Your task to perform on an android device: open chrome privacy settings Image 0: 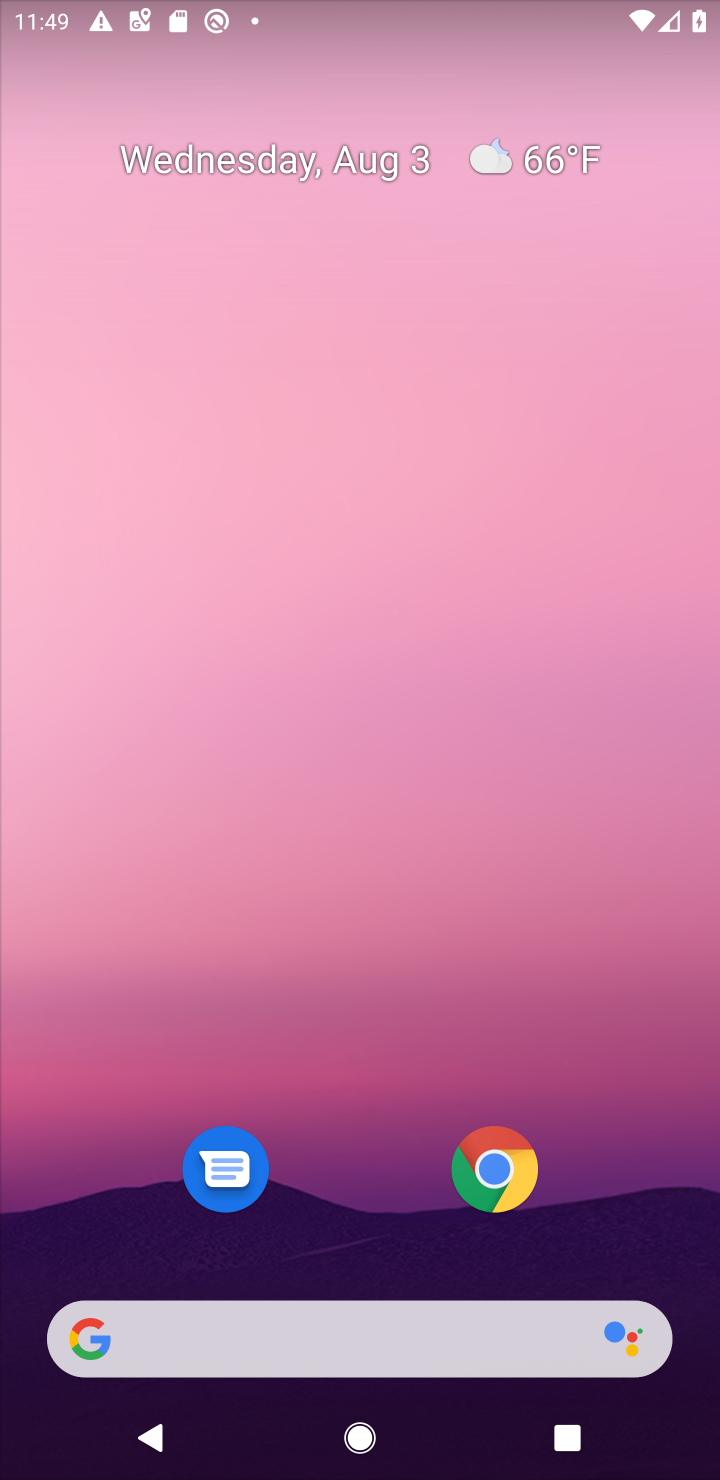
Step 0: press home button
Your task to perform on an android device: open chrome privacy settings Image 1: 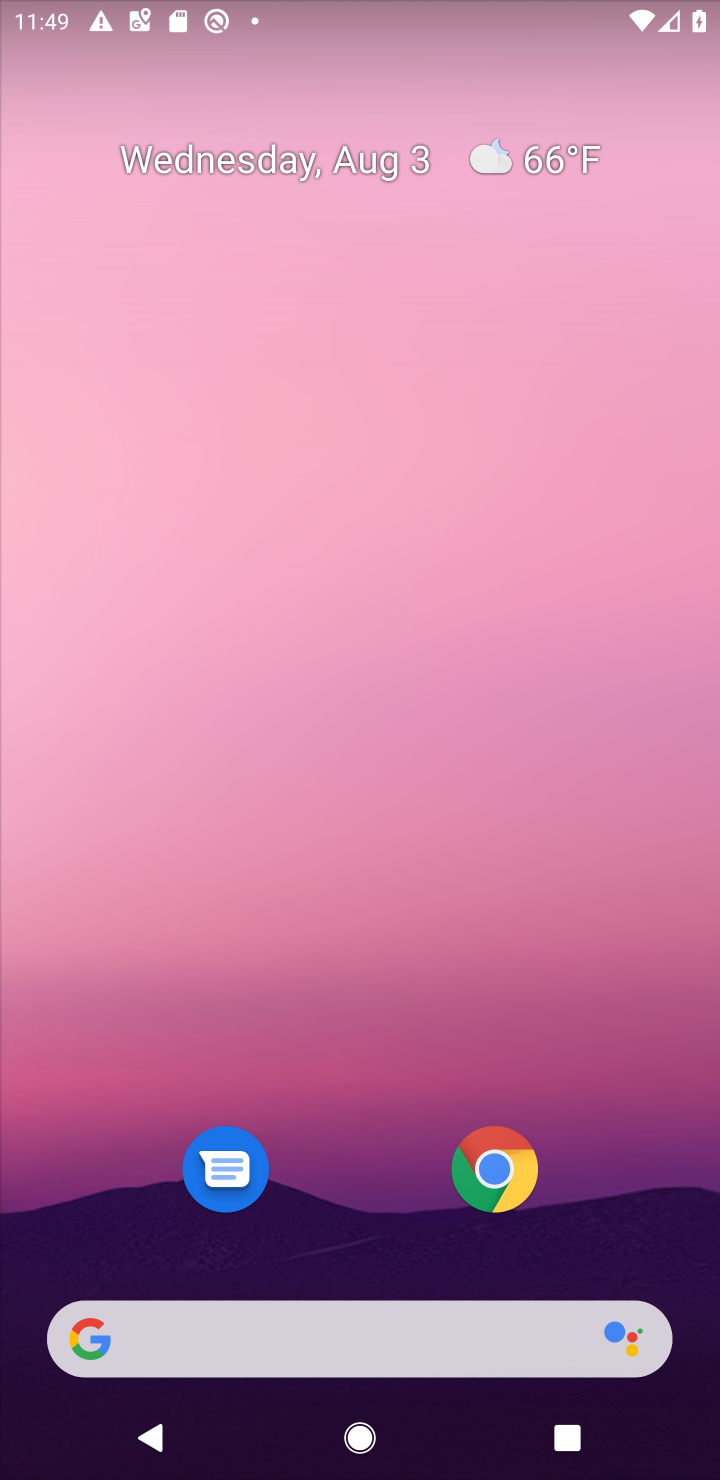
Step 1: click (498, 1179)
Your task to perform on an android device: open chrome privacy settings Image 2: 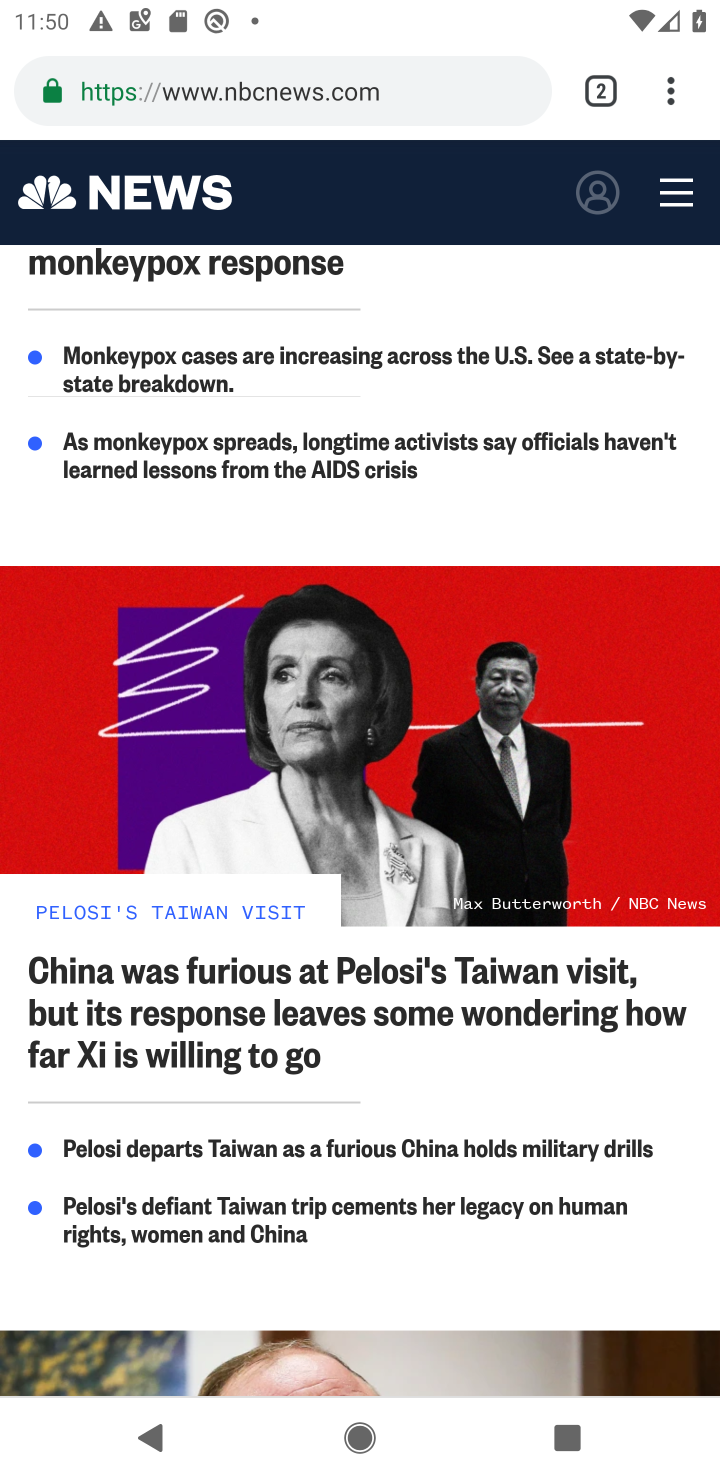
Step 2: click (674, 92)
Your task to perform on an android device: open chrome privacy settings Image 3: 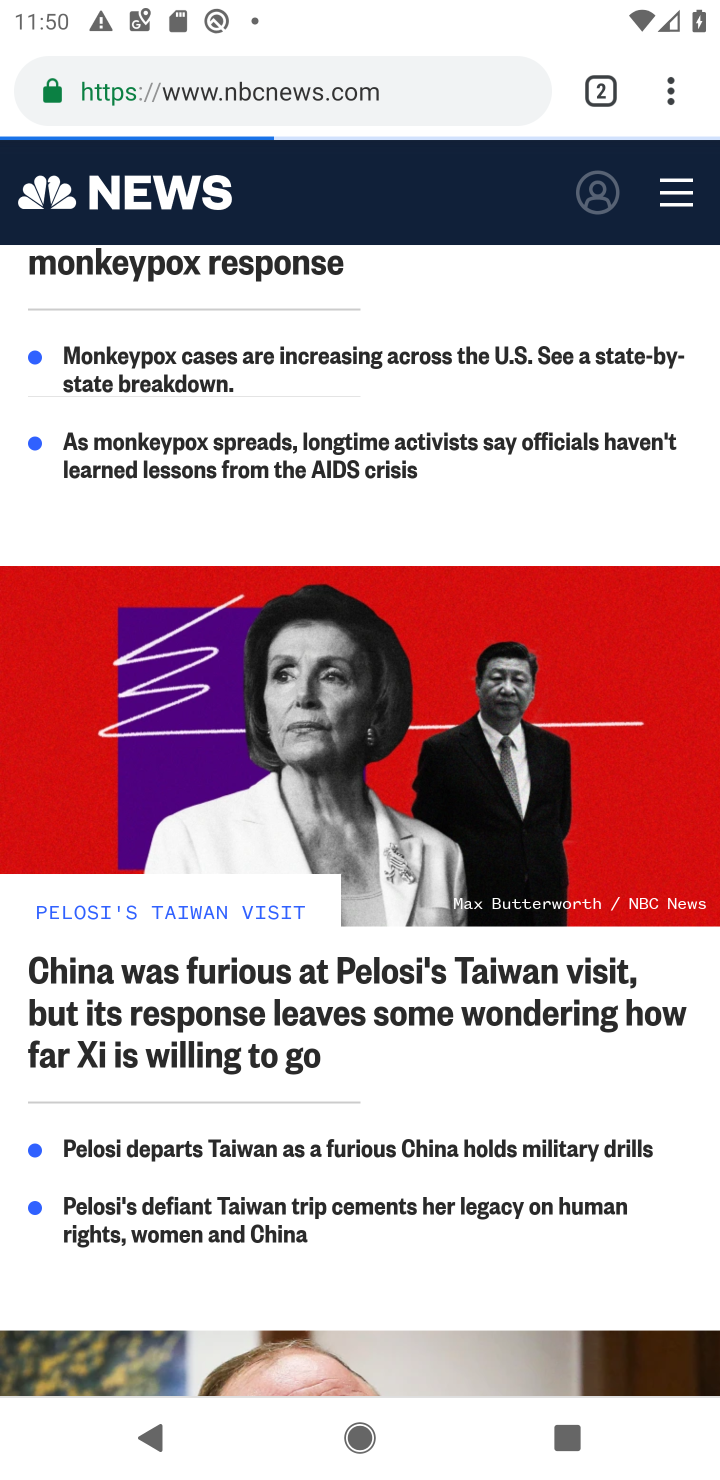
Step 3: click (674, 92)
Your task to perform on an android device: open chrome privacy settings Image 4: 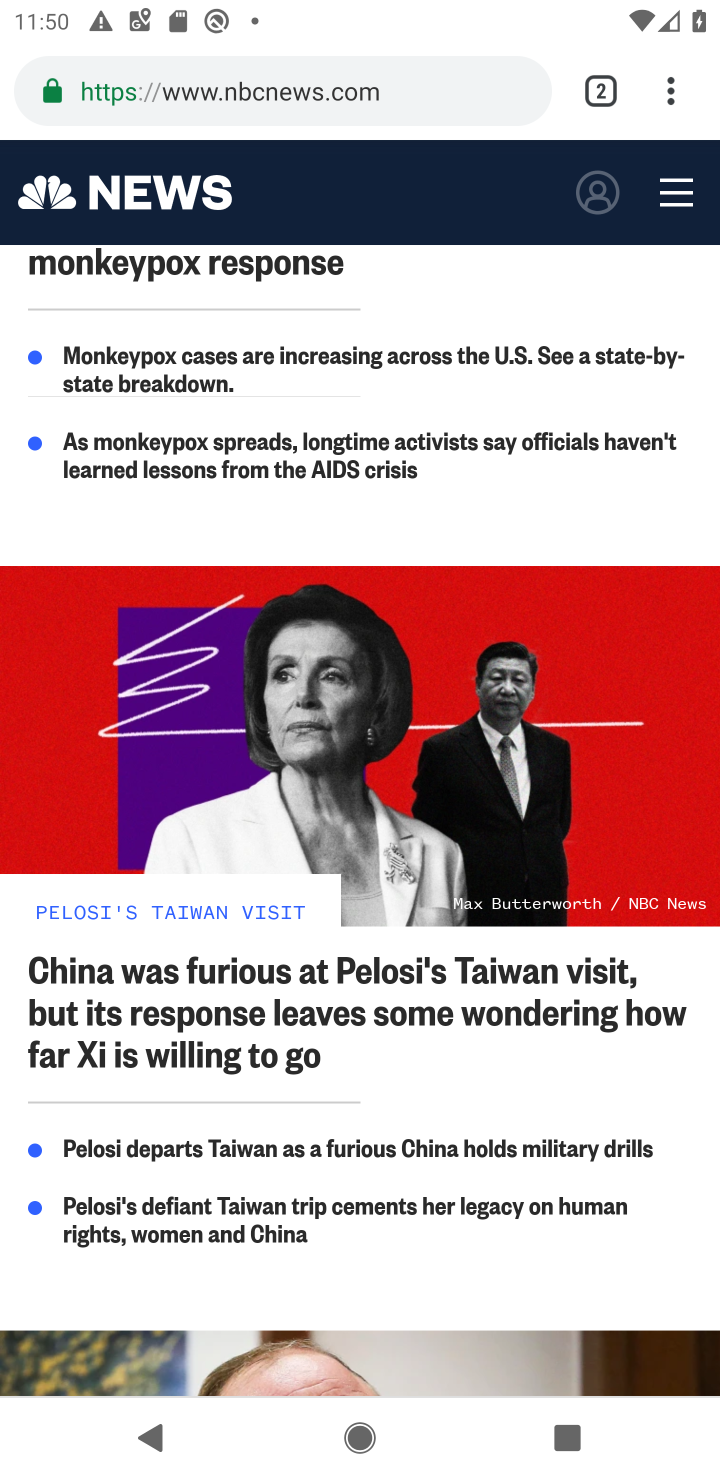
Step 4: click (674, 94)
Your task to perform on an android device: open chrome privacy settings Image 5: 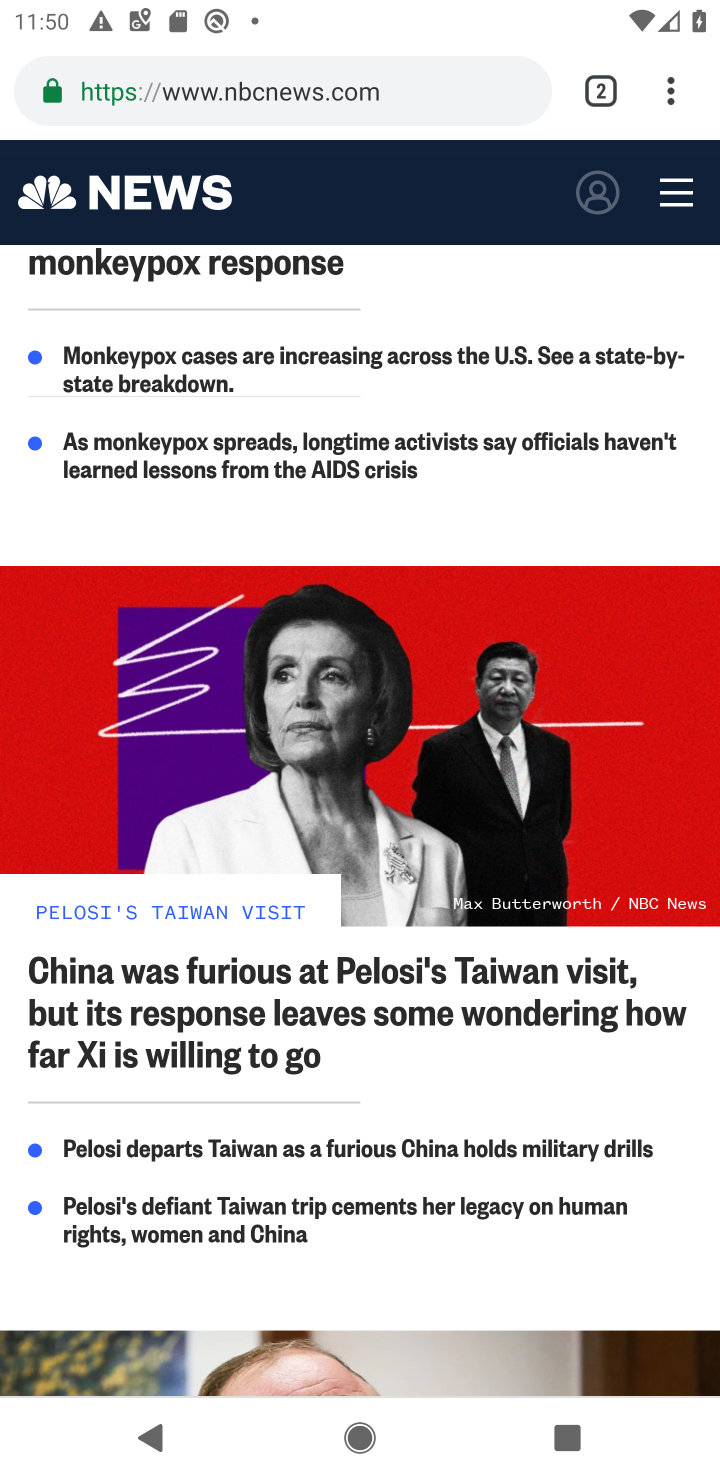
Step 5: click (669, 94)
Your task to perform on an android device: open chrome privacy settings Image 6: 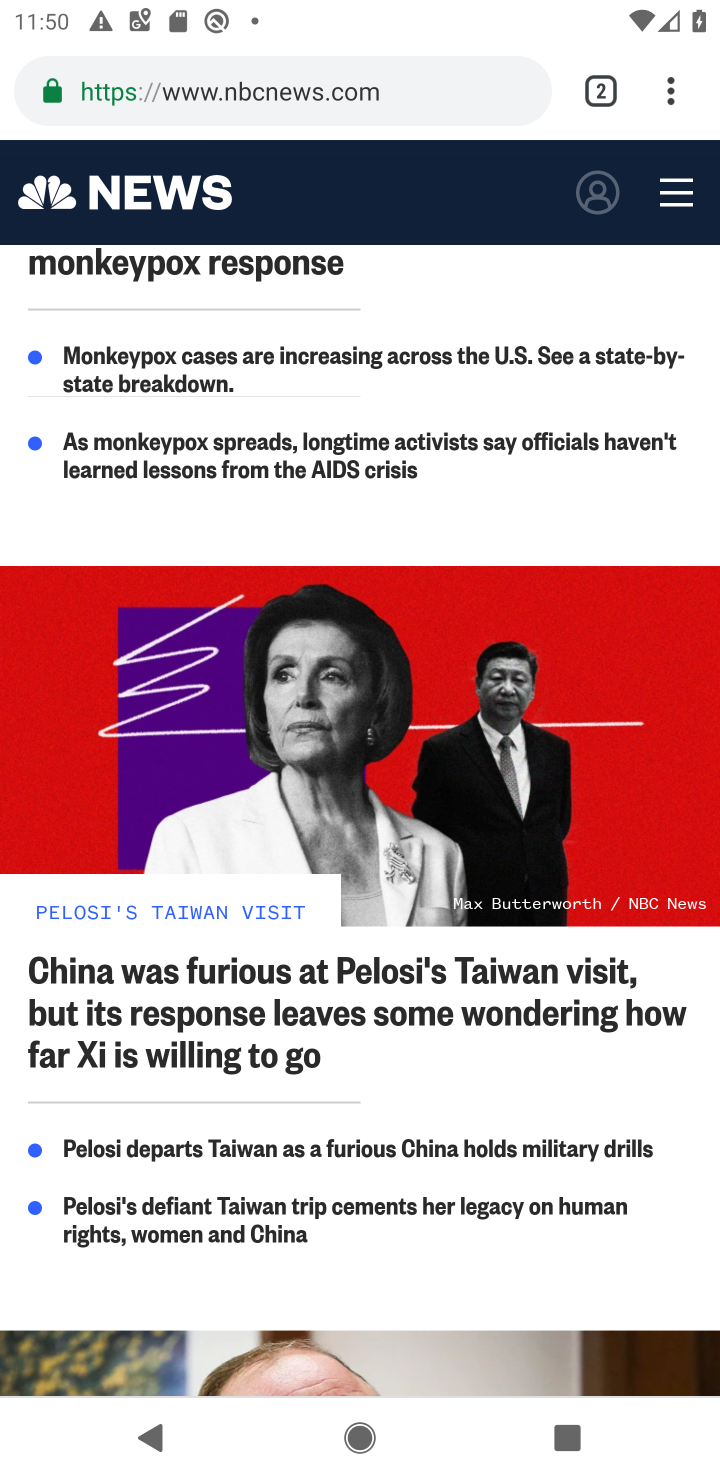
Step 6: click (671, 94)
Your task to perform on an android device: open chrome privacy settings Image 7: 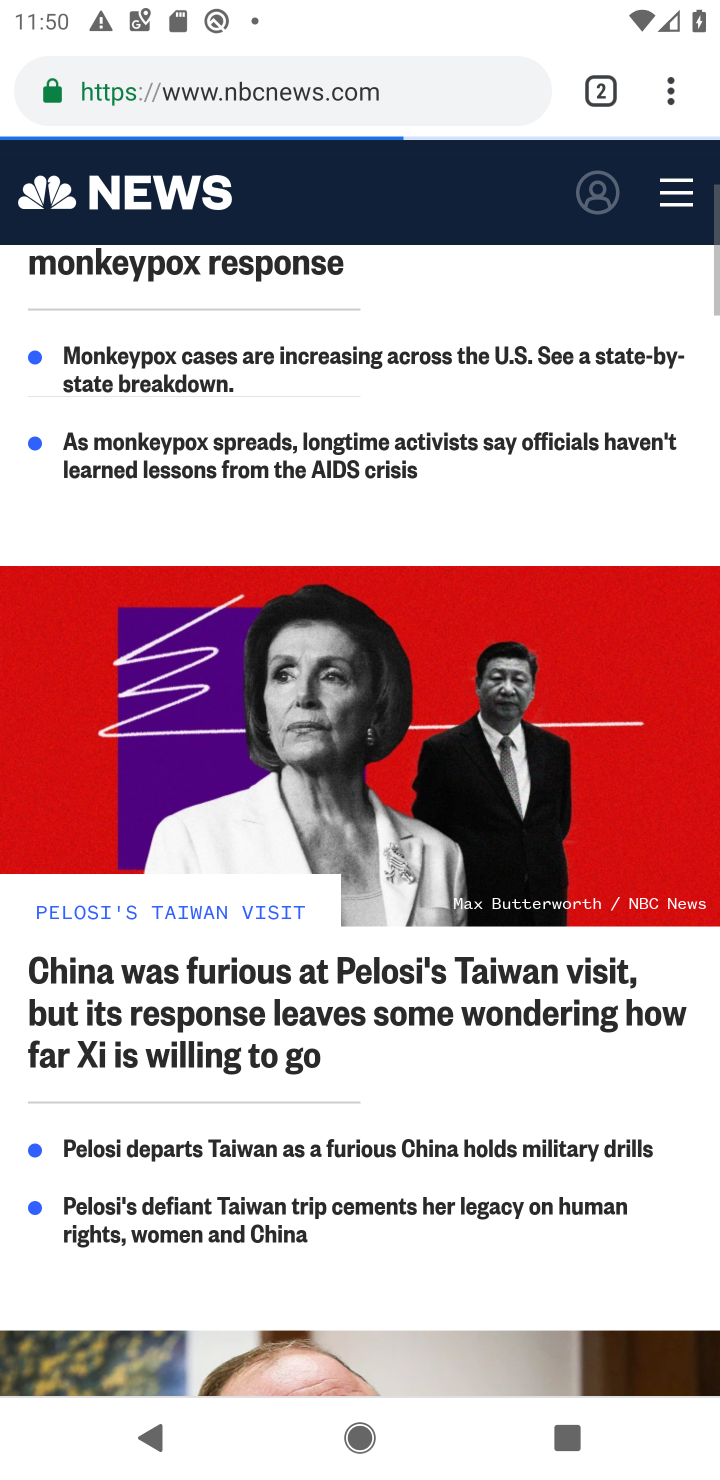
Step 7: click (671, 94)
Your task to perform on an android device: open chrome privacy settings Image 8: 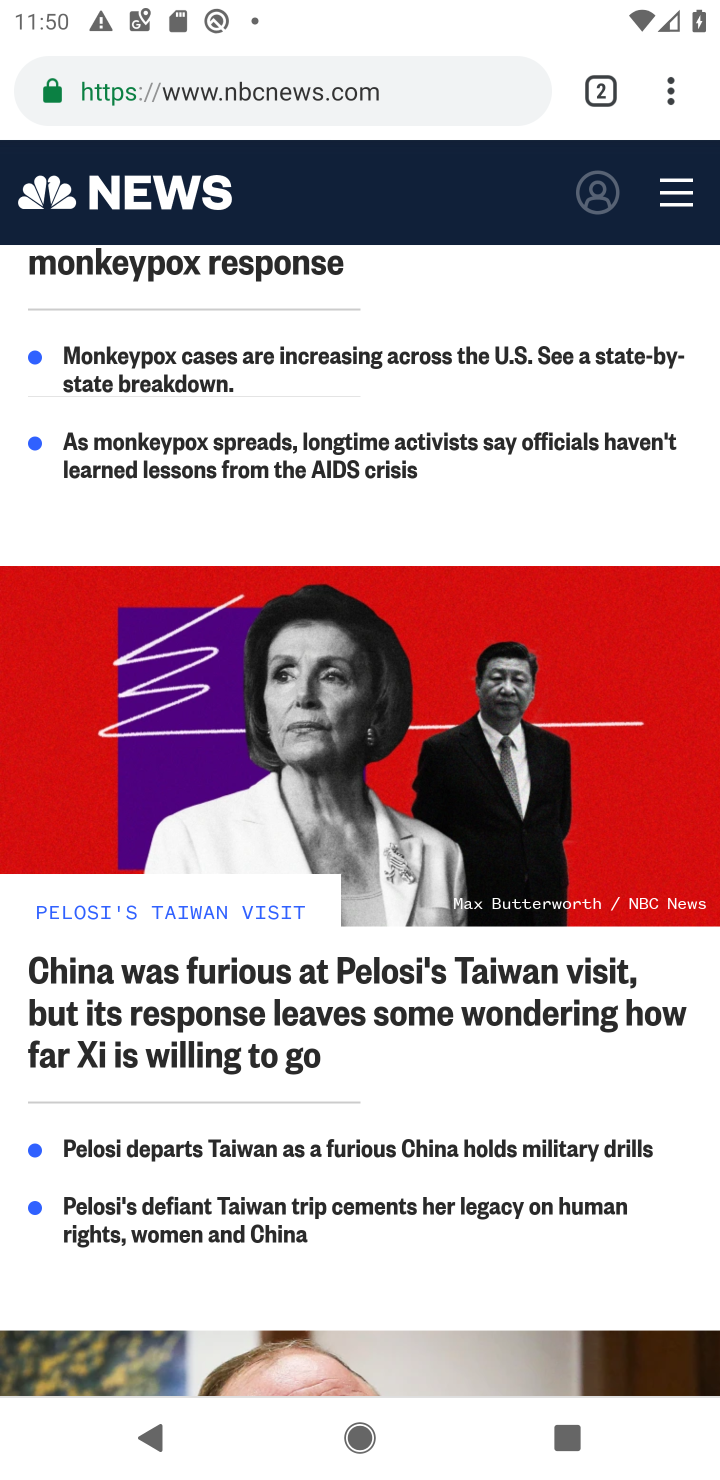
Step 8: click (674, 90)
Your task to perform on an android device: open chrome privacy settings Image 9: 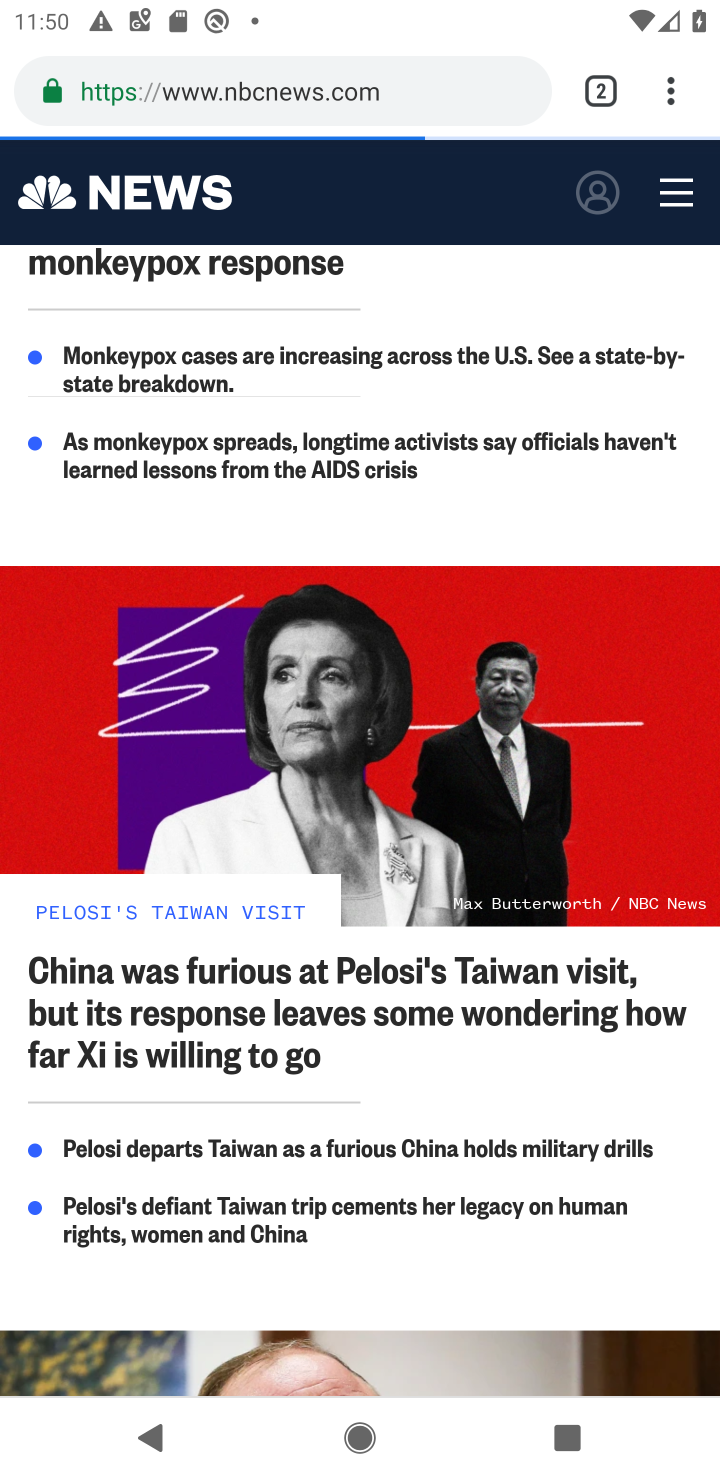
Step 9: drag from (668, 91) to (352, 1120)
Your task to perform on an android device: open chrome privacy settings Image 10: 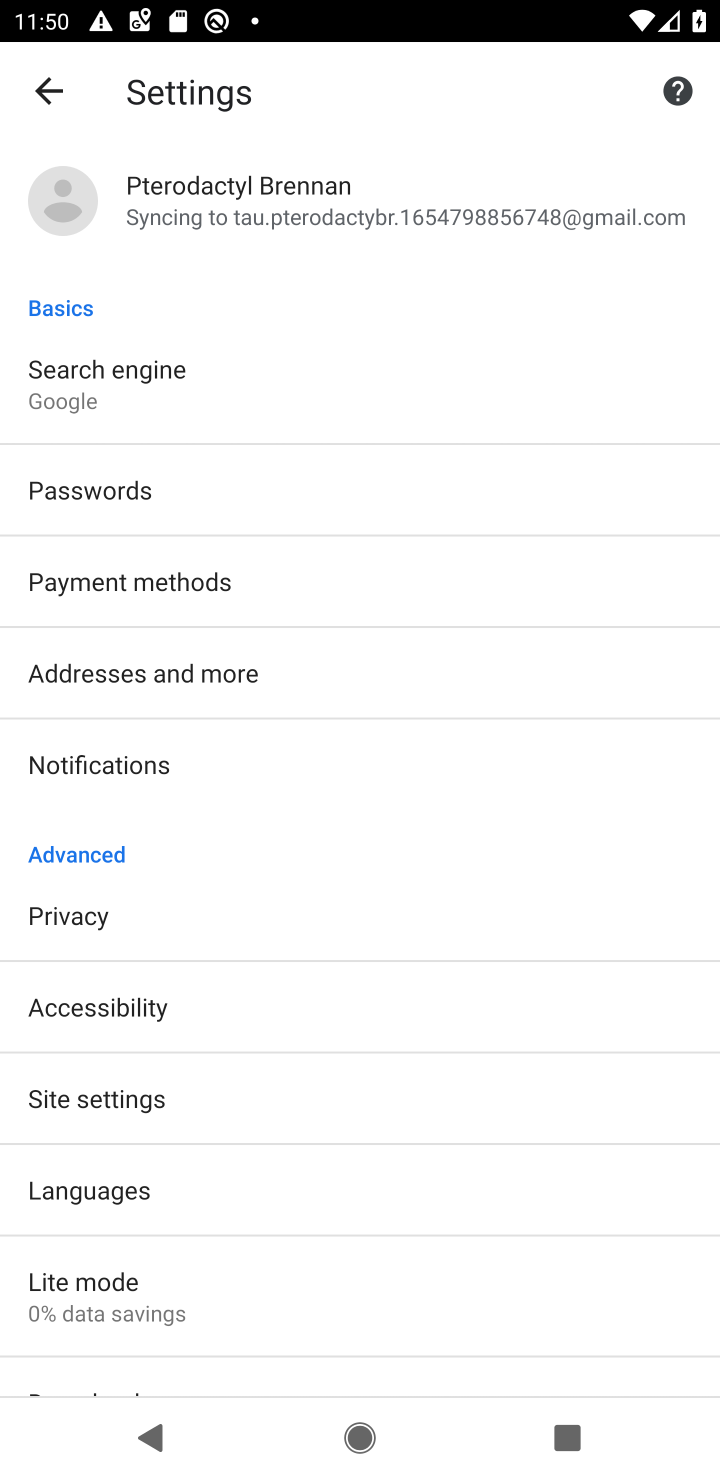
Step 10: click (98, 912)
Your task to perform on an android device: open chrome privacy settings Image 11: 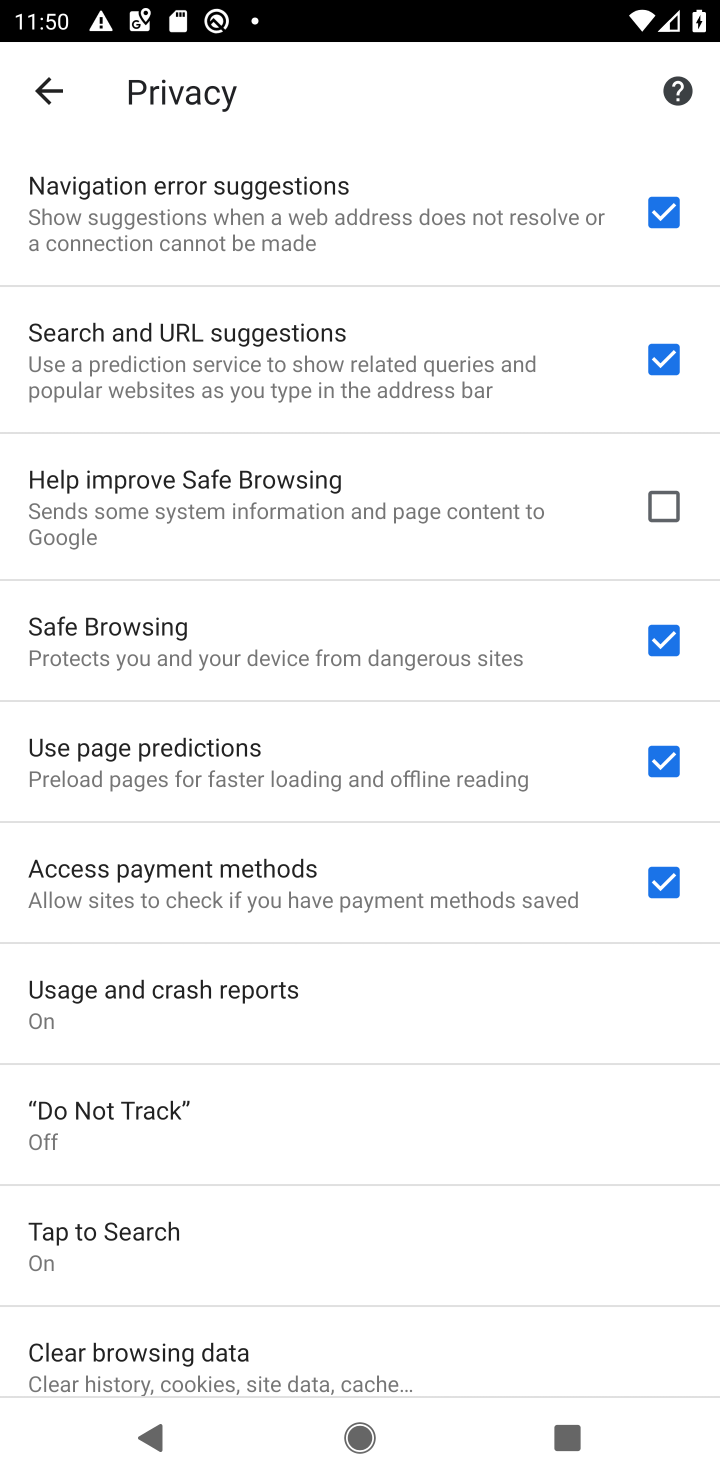
Step 11: task complete